Your task to perform on an android device: Open the web browser Image 0: 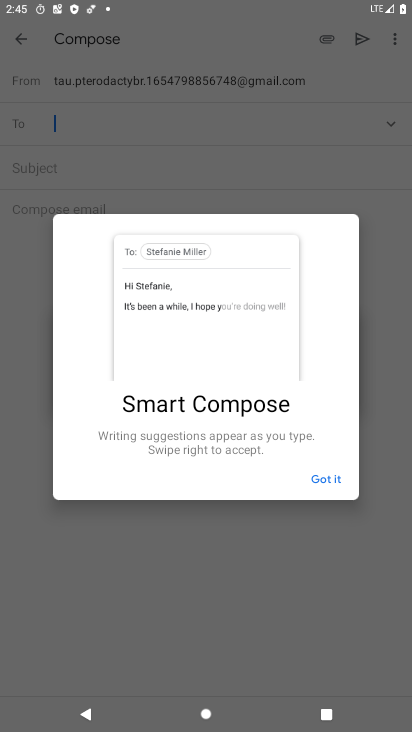
Step 0: press home button
Your task to perform on an android device: Open the web browser Image 1: 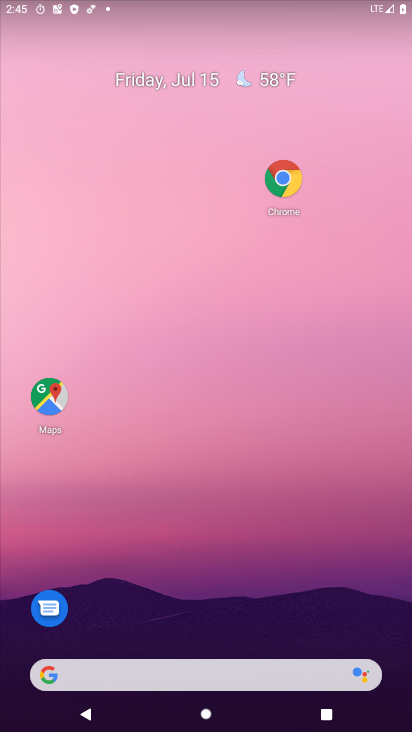
Step 1: drag from (259, 601) to (261, 143)
Your task to perform on an android device: Open the web browser Image 2: 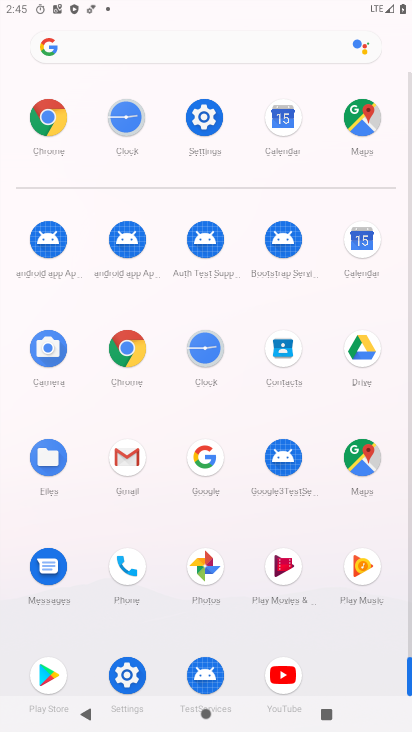
Step 2: click (124, 336)
Your task to perform on an android device: Open the web browser Image 3: 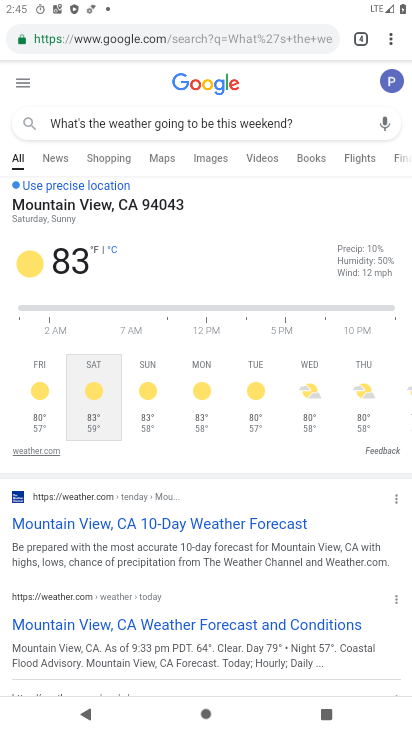
Step 3: click (277, 38)
Your task to perform on an android device: Open the web browser Image 4: 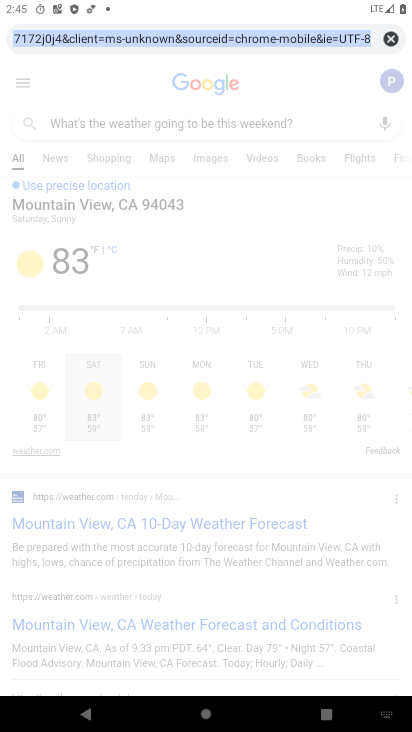
Step 4: click (383, 37)
Your task to perform on an android device: Open the web browser Image 5: 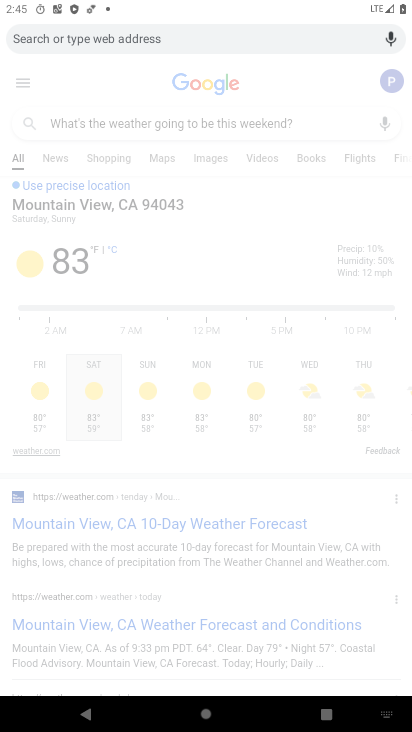
Step 5: type "web brawser"
Your task to perform on an android device: Open the web browser Image 6: 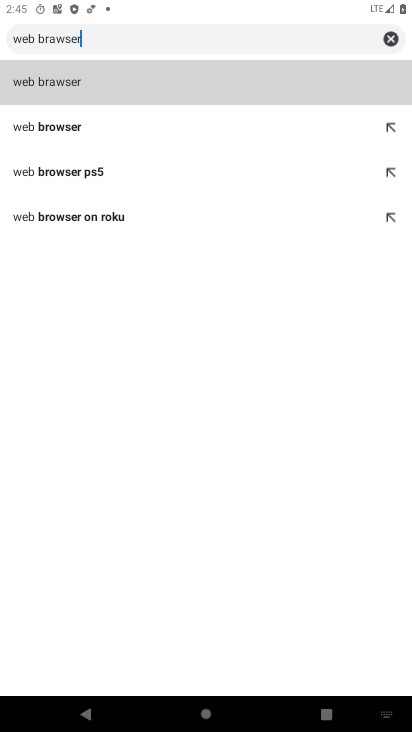
Step 6: click (66, 86)
Your task to perform on an android device: Open the web browser Image 7: 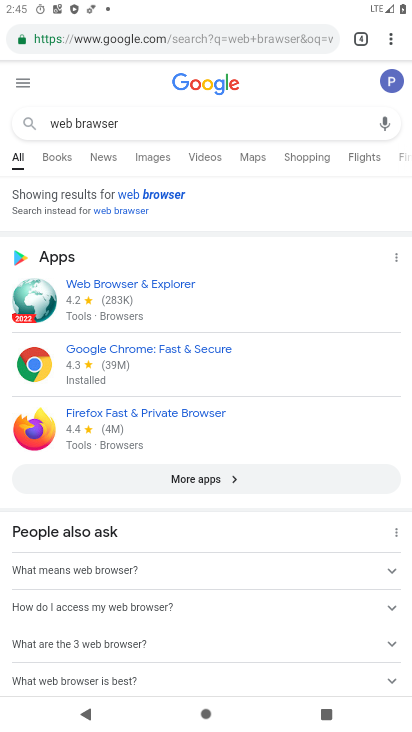
Step 7: task complete